Your task to perform on an android device: toggle notifications settings in the gmail app Image 0: 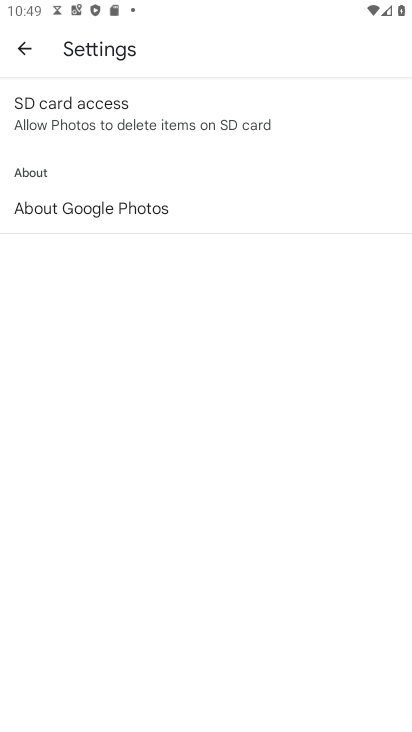
Step 0: press home button
Your task to perform on an android device: toggle notifications settings in the gmail app Image 1: 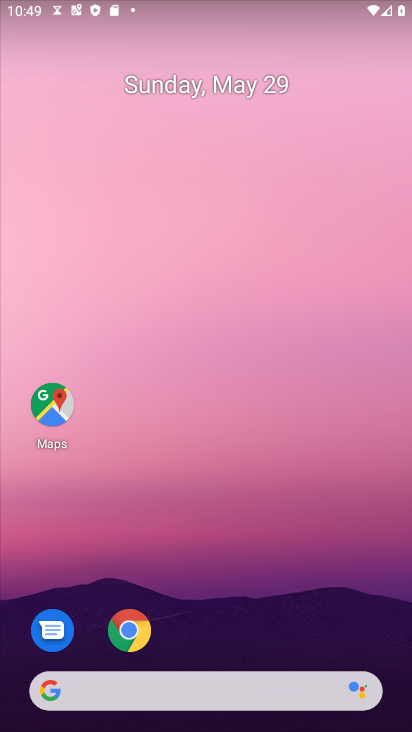
Step 1: drag from (237, 615) to (266, 6)
Your task to perform on an android device: toggle notifications settings in the gmail app Image 2: 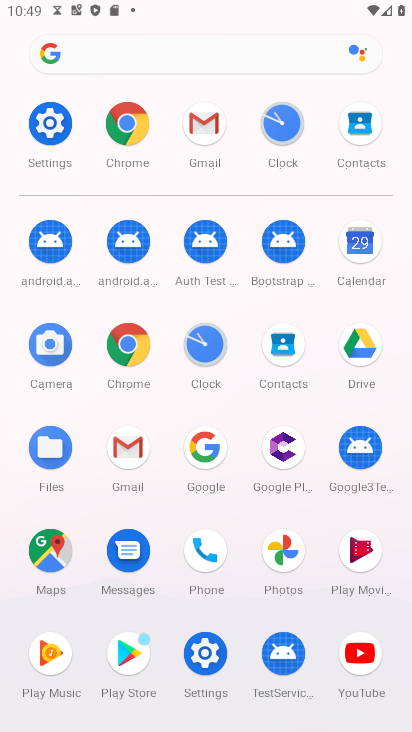
Step 2: click (41, 123)
Your task to perform on an android device: toggle notifications settings in the gmail app Image 3: 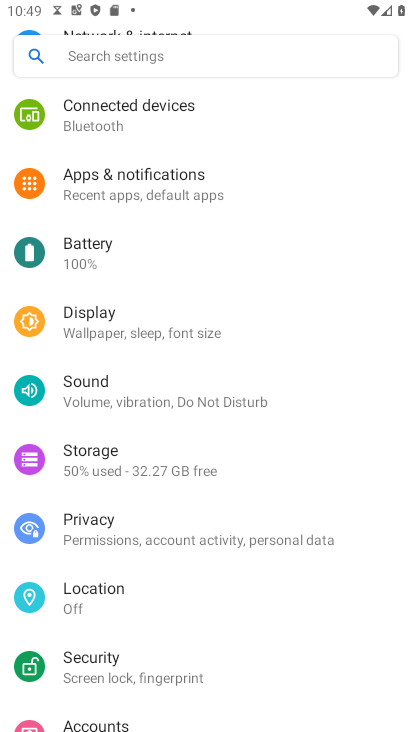
Step 3: click (182, 186)
Your task to perform on an android device: toggle notifications settings in the gmail app Image 4: 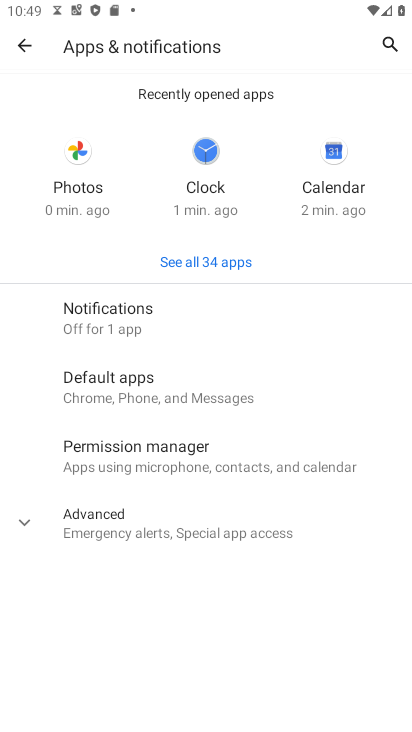
Step 4: click (201, 260)
Your task to perform on an android device: toggle notifications settings in the gmail app Image 5: 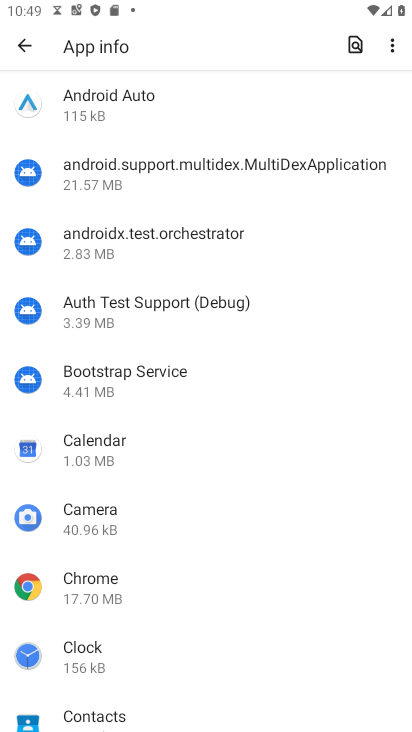
Step 5: drag from (176, 583) to (144, 160)
Your task to perform on an android device: toggle notifications settings in the gmail app Image 6: 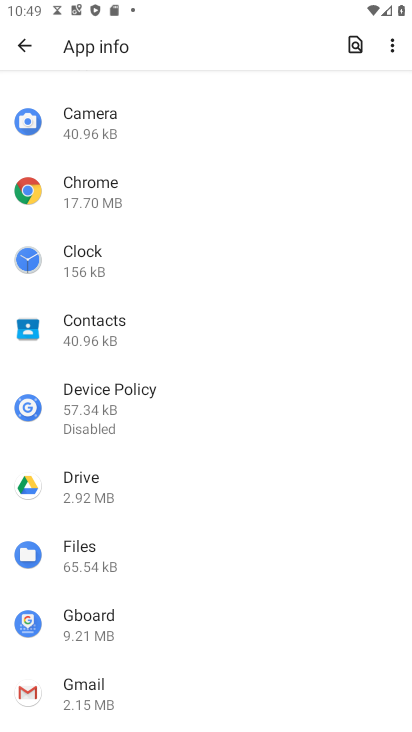
Step 6: click (26, 691)
Your task to perform on an android device: toggle notifications settings in the gmail app Image 7: 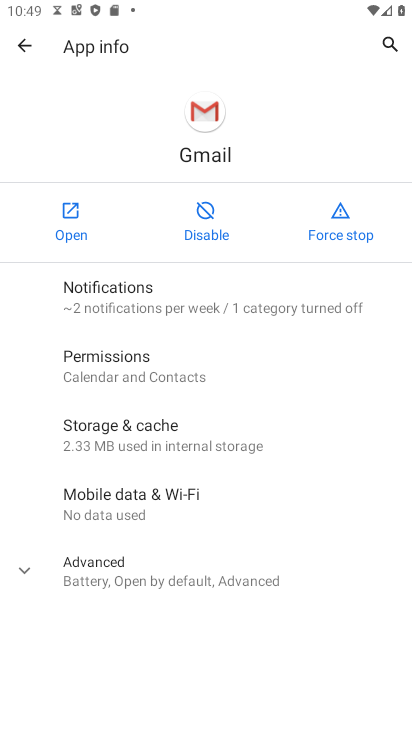
Step 7: click (155, 299)
Your task to perform on an android device: toggle notifications settings in the gmail app Image 8: 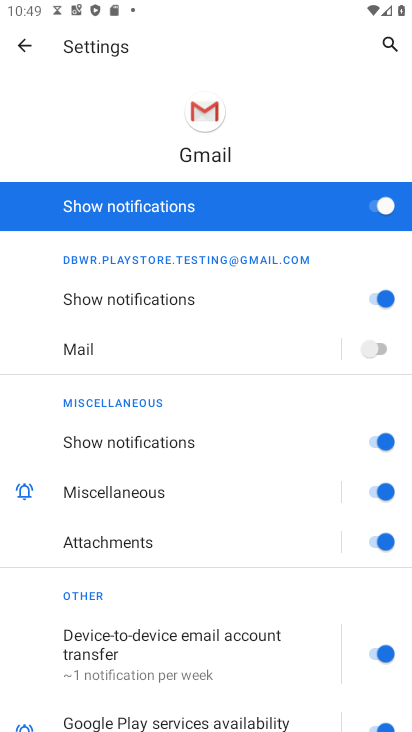
Step 8: click (374, 202)
Your task to perform on an android device: toggle notifications settings in the gmail app Image 9: 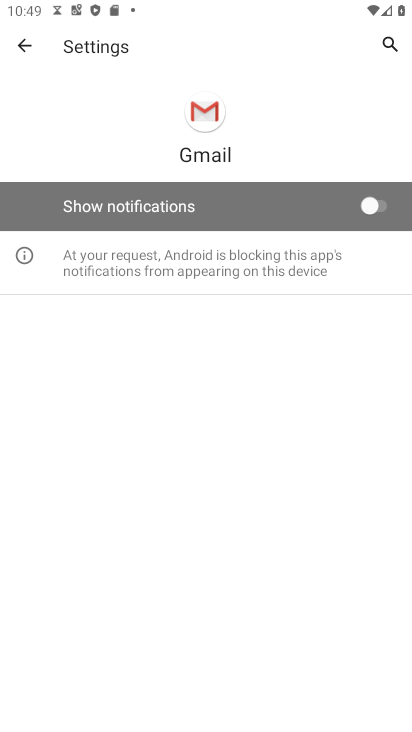
Step 9: task complete